Your task to perform on an android device: check google app version Image 0: 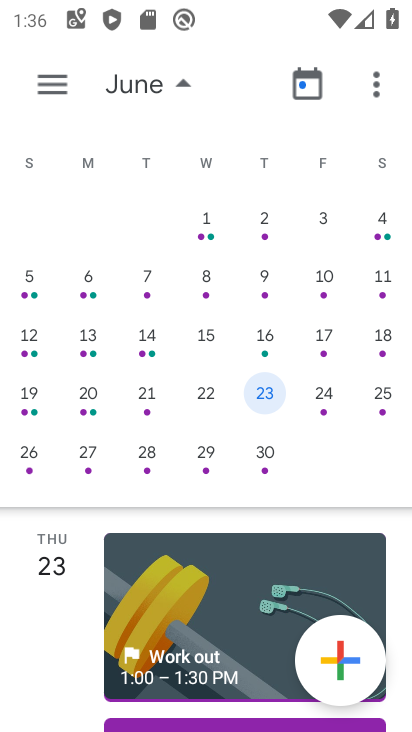
Step 0: press home button
Your task to perform on an android device: check google app version Image 1: 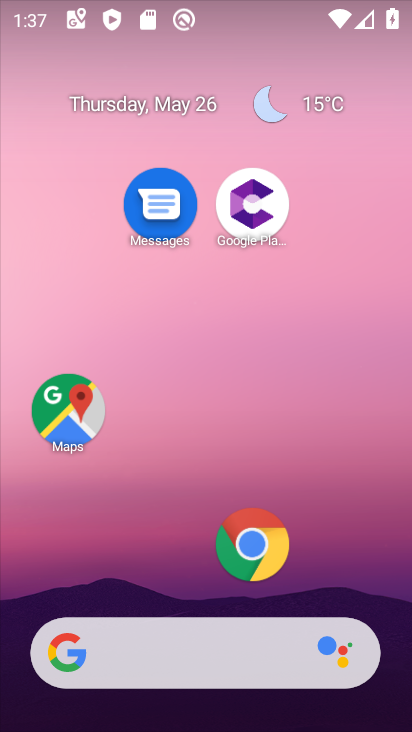
Step 1: drag from (144, 574) to (137, 105)
Your task to perform on an android device: check google app version Image 2: 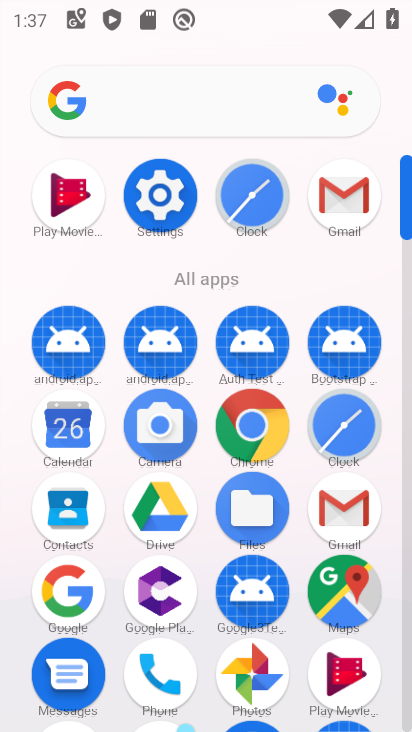
Step 2: click (148, 206)
Your task to perform on an android device: check google app version Image 3: 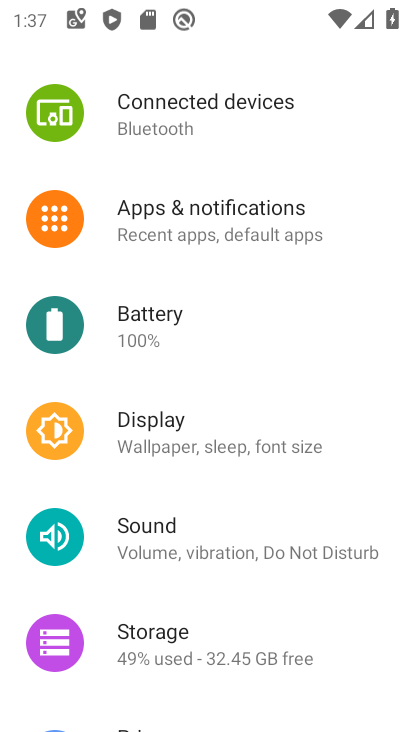
Step 3: drag from (188, 474) to (195, 164)
Your task to perform on an android device: check google app version Image 4: 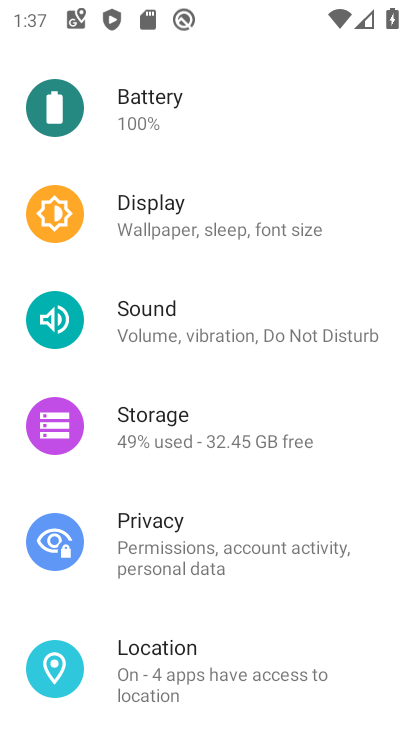
Step 4: drag from (140, 684) to (267, 247)
Your task to perform on an android device: check google app version Image 5: 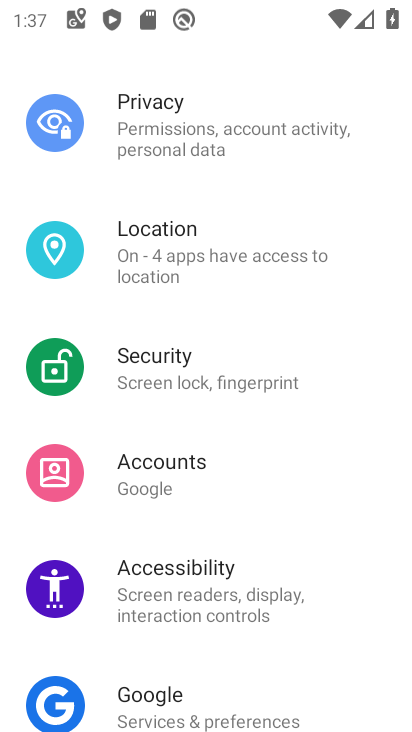
Step 5: click (166, 716)
Your task to perform on an android device: check google app version Image 6: 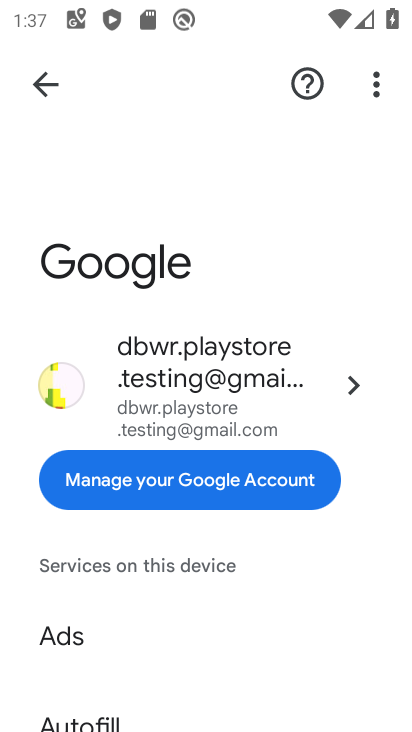
Step 6: click (389, 84)
Your task to perform on an android device: check google app version Image 7: 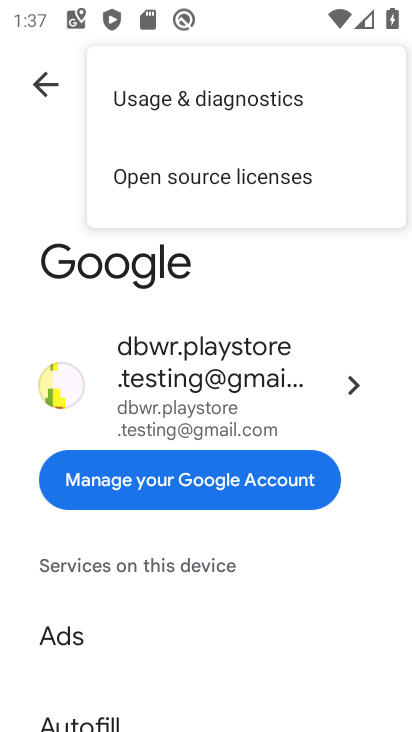
Step 7: click (57, 139)
Your task to perform on an android device: check google app version Image 8: 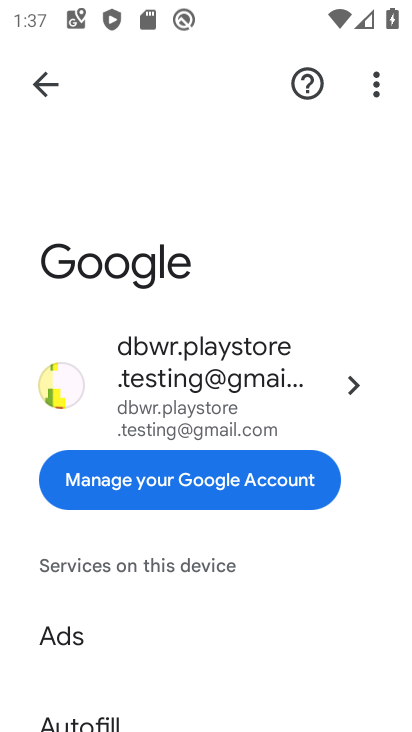
Step 8: click (41, 79)
Your task to perform on an android device: check google app version Image 9: 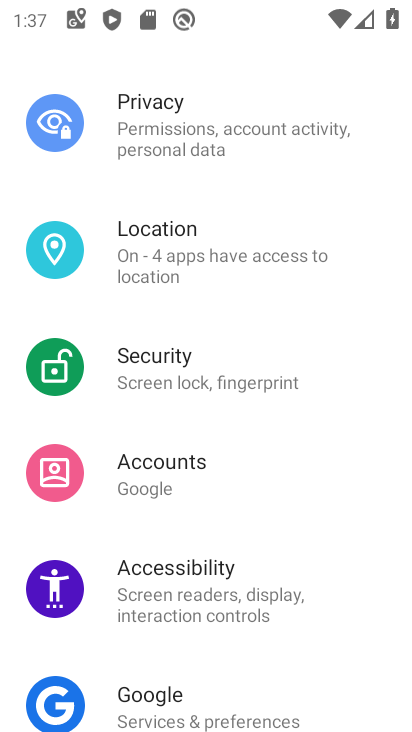
Step 9: press home button
Your task to perform on an android device: check google app version Image 10: 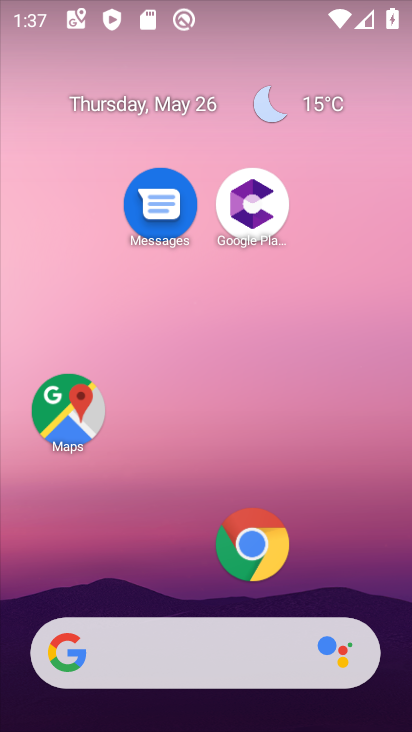
Step 10: click (223, 555)
Your task to perform on an android device: check google app version Image 11: 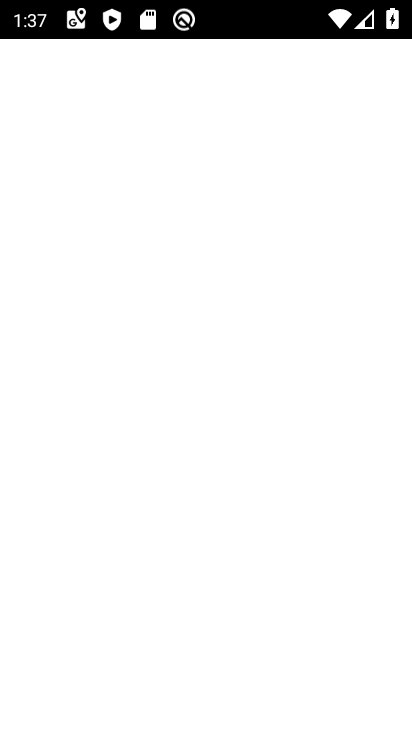
Step 11: click (199, 613)
Your task to perform on an android device: check google app version Image 12: 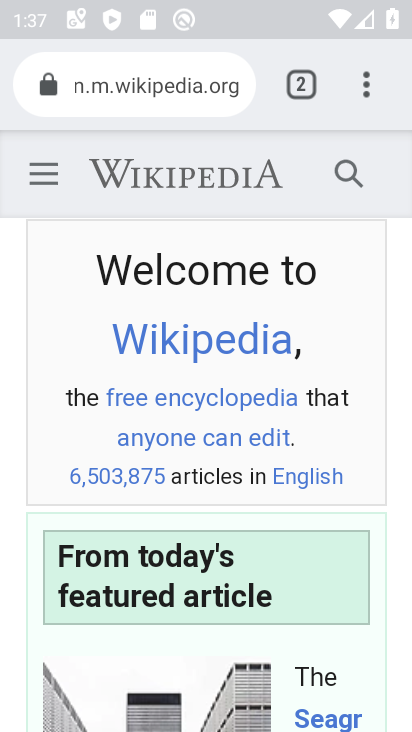
Step 12: click (199, 613)
Your task to perform on an android device: check google app version Image 13: 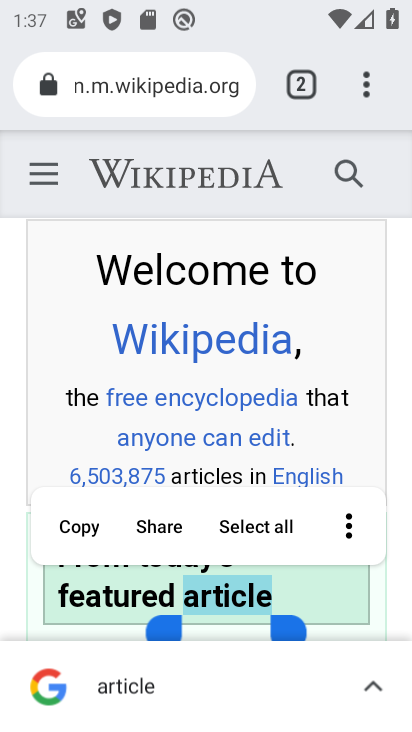
Step 13: press home button
Your task to perform on an android device: check google app version Image 14: 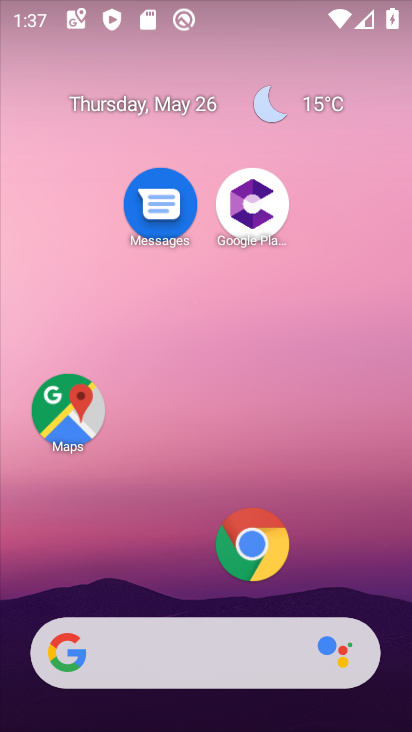
Step 14: click (188, 652)
Your task to perform on an android device: check google app version Image 15: 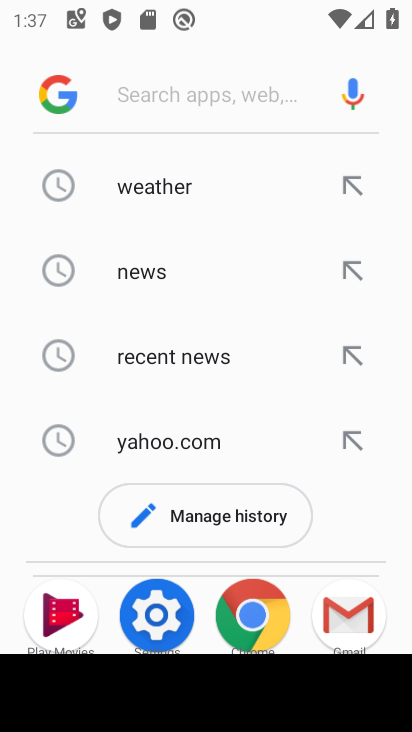
Step 15: click (54, 94)
Your task to perform on an android device: check google app version Image 16: 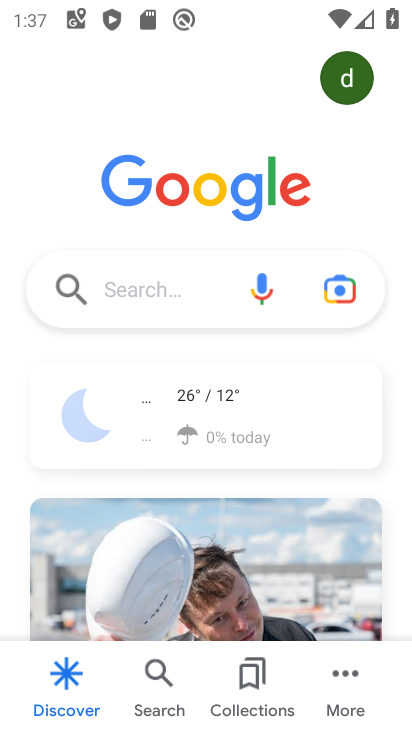
Step 16: click (337, 684)
Your task to perform on an android device: check google app version Image 17: 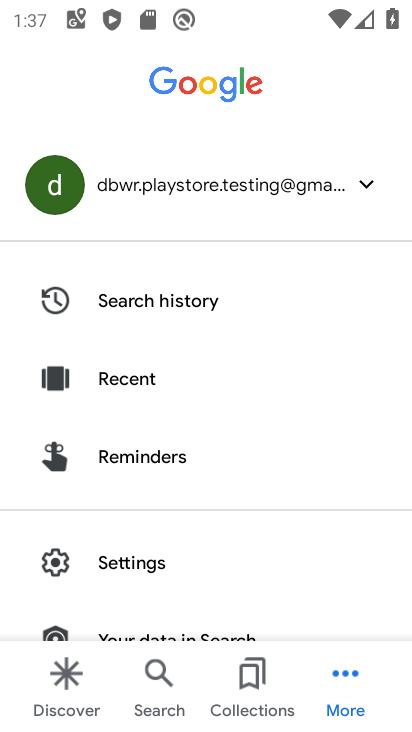
Step 17: click (198, 565)
Your task to perform on an android device: check google app version Image 18: 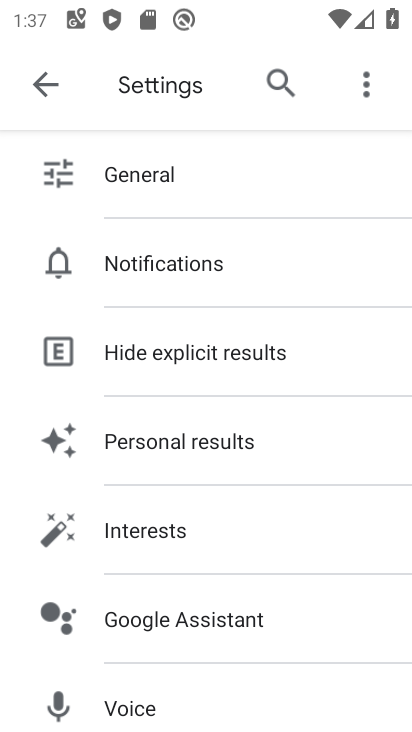
Step 18: drag from (115, 608) to (301, 43)
Your task to perform on an android device: check google app version Image 19: 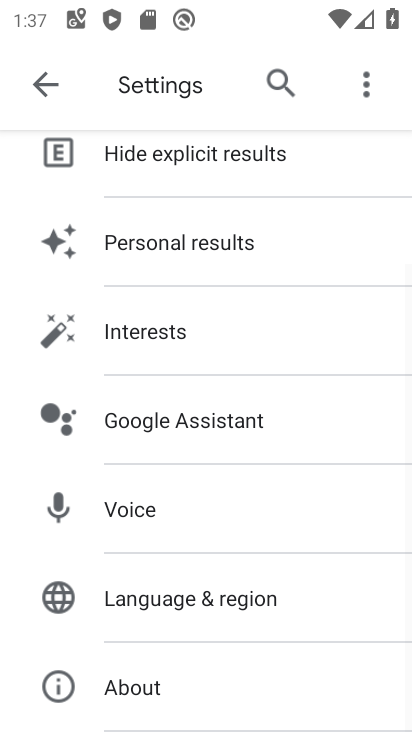
Step 19: click (77, 688)
Your task to perform on an android device: check google app version Image 20: 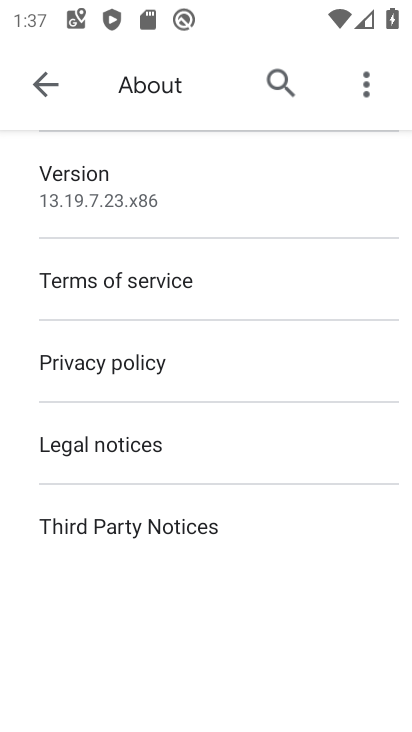
Step 20: task complete